Your task to perform on an android device: move a message to another label in the gmail app Image 0: 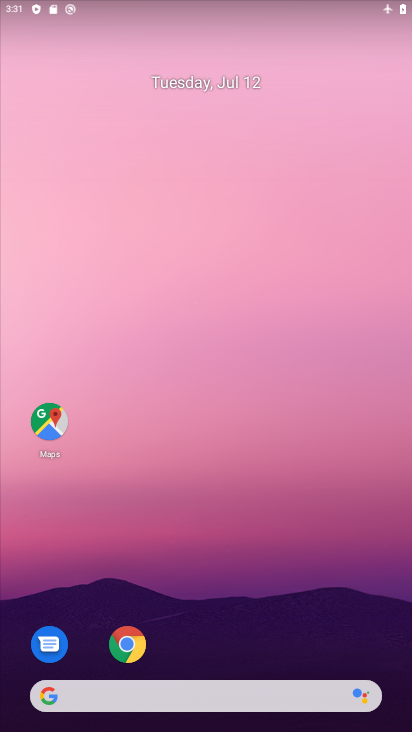
Step 0: drag from (273, 566) to (180, 146)
Your task to perform on an android device: move a message to another label in the gmail app Image 1: 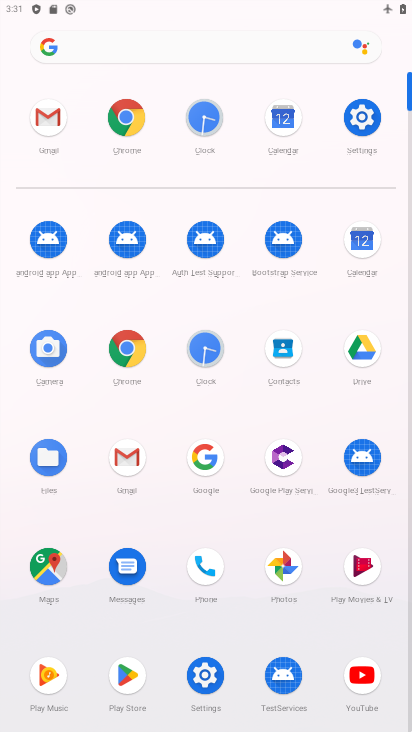
Step 1: click (120, 459)
Your task to perform on an android device: move a message to another label in the gmail app Image 2: 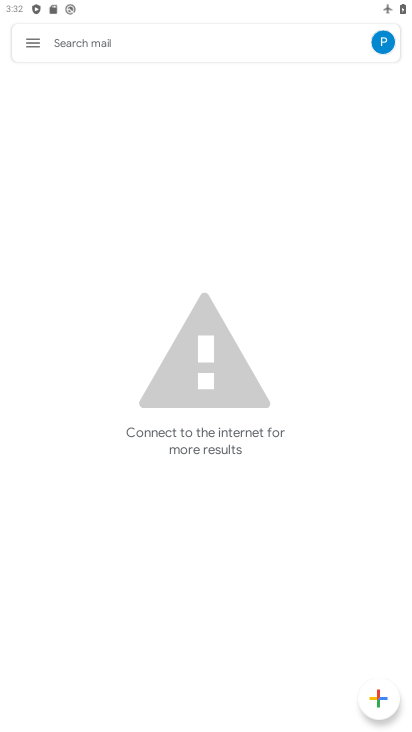
Step 2: task complete